Your task to perform on an android device: Go to settings Image 0: 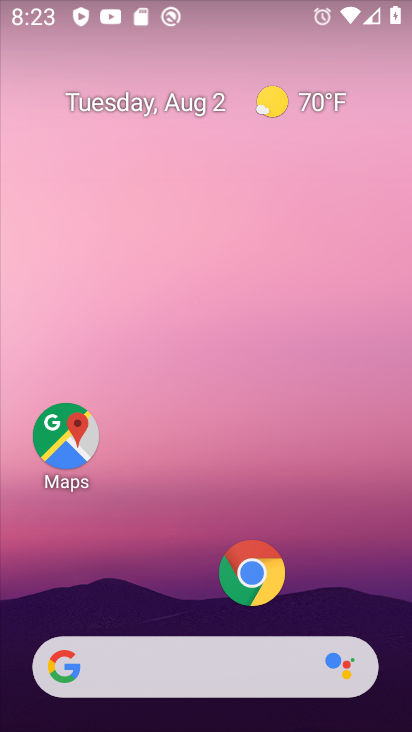
Step 0: press home button
Your task to perform on an android device: Go to settings Image 1: 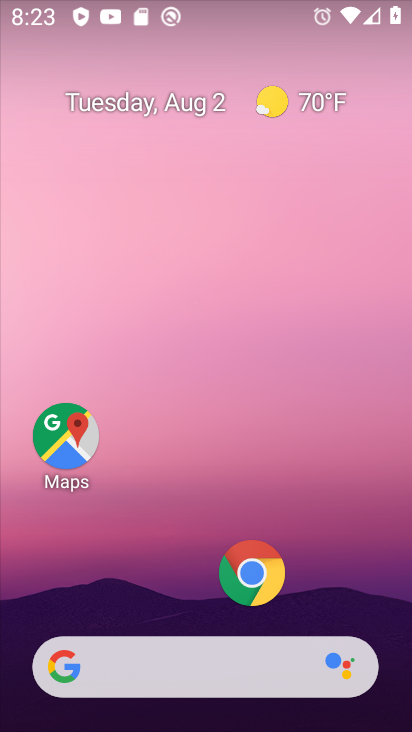
Step 1: drag from (196, 605) to (209, 62)
Your task to perform on an android device: Go to settings Image 2: 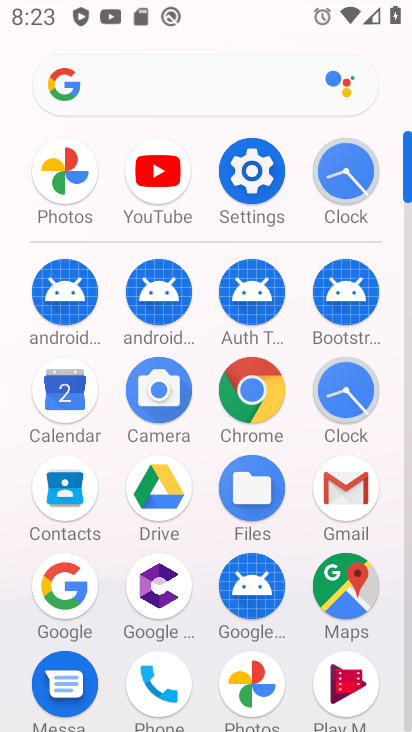
Step 2: click (249, 158)
Your task to perform on an android device: Go to settings Image 3: 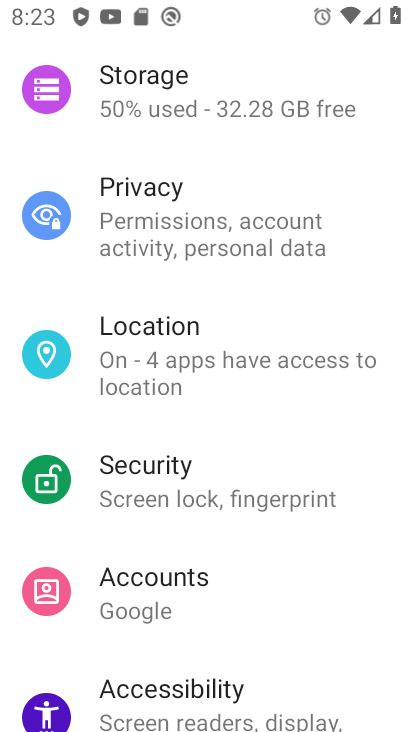
Step 3: task complete